Your task to perform on an android device: make emails show in primary in the gmail app Image 0: 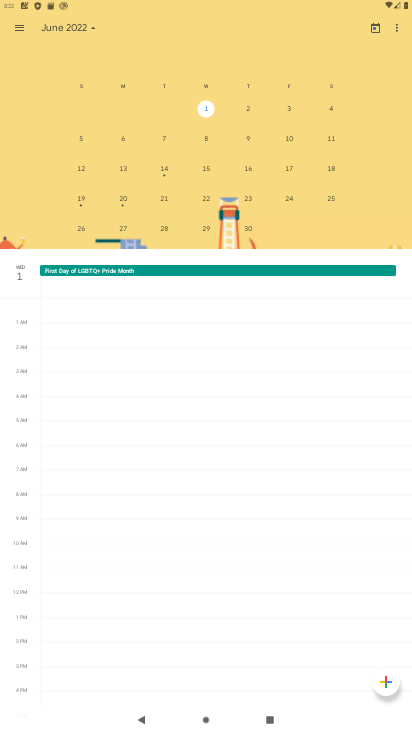
Step 0: press home button
Your task to perform on an android device: make emails show in primary in the gmail app Image 1: 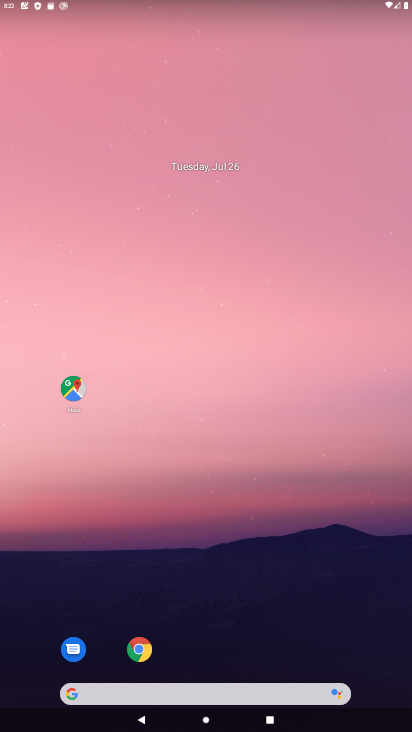
Step 1: drag from (204, 677) to (218, 79)
Your task to perform on an android device: make emails show in primary in the gmail app Image 2: 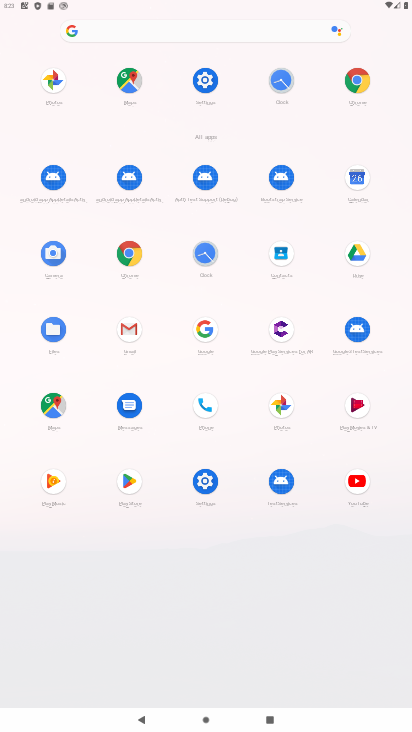
Step 2: click (137, 330)
Your task to perform on an android device: make emails show in primary in the gmail app Image 3: 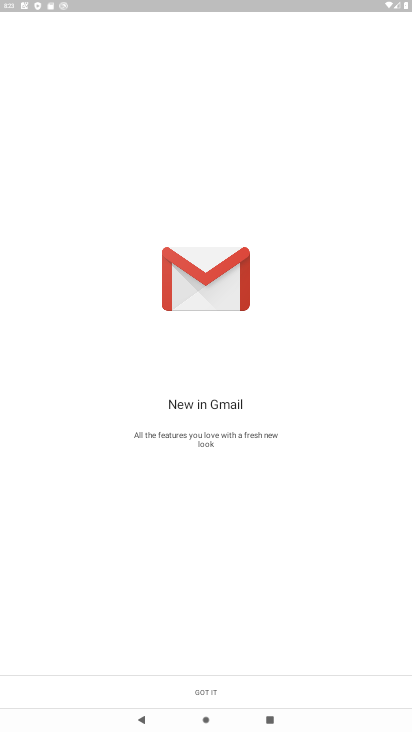
Step 3: click (203, 699)
Your task to perform on an android device: make emails show in primary in the gmail app Image 4: 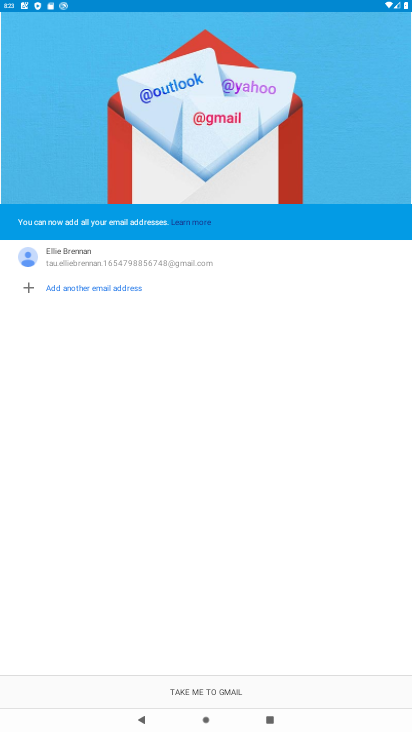
Step 4: click (203, 699)
Your task to perform on an android device: make emails show in primary in the gmail app Image 5: 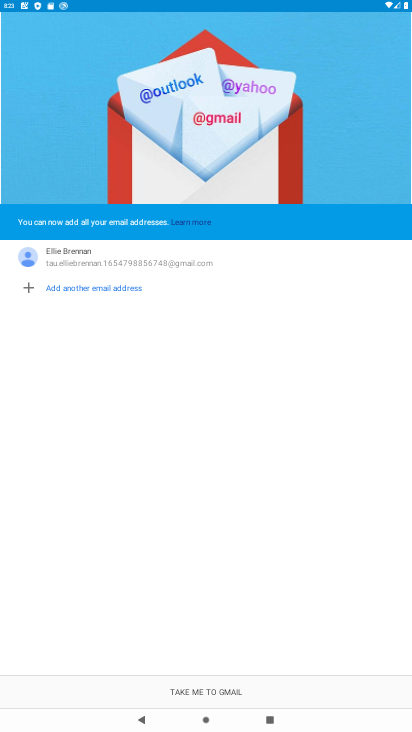
Step 5: click (203, 699)
Your task to perform on an android device: make emails show in primary in the gmail app Image 6: 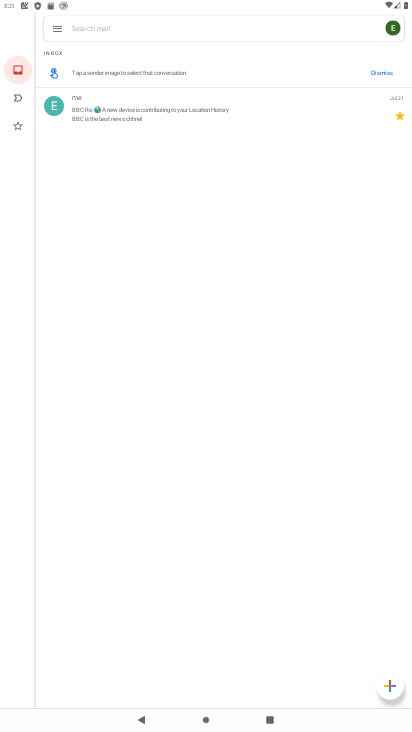
Step 6: click (61, 31)
Your task to perform on an android device: make emails show in primary in the gmail app Image 7: 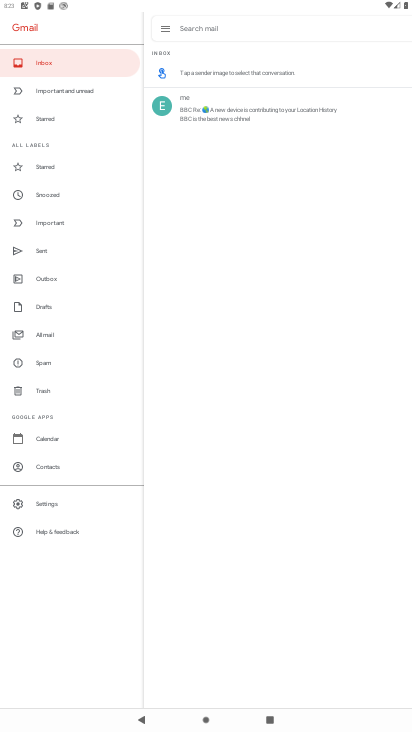
Step 7: task complete